Your task to perform on an android device: Is it going to rain today? Image 0: 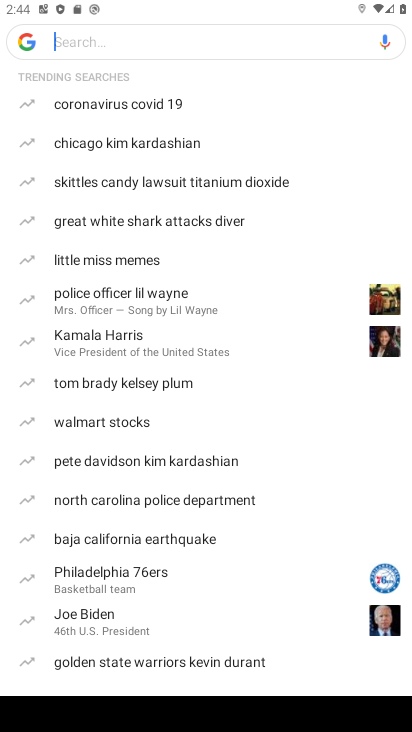
Step 0: press home button
Your task to perform on an android device: Is it going to rain today? Image 1: 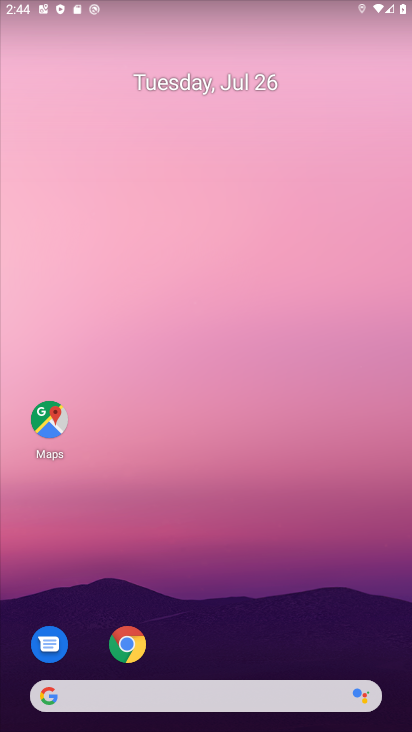
Step 1: click (46, 697)
Your task to perform on an android device: Is it going to rain today? Image 2: 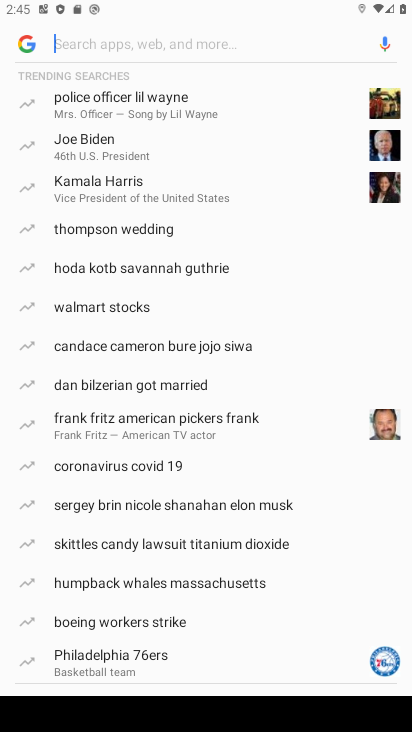
Step 2: type "Is it going to rain today?"
Your task to perform on an android device: Is it going to rain today? Image 3: 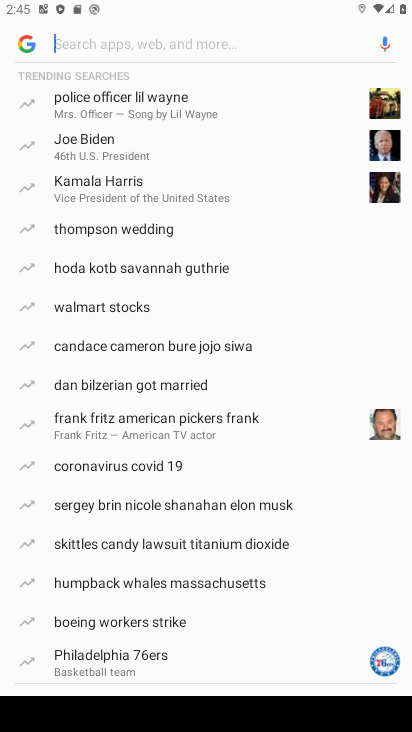
Step 3: click (92, 45)
Your task to perform on an android device: Is it going to rain today? Image 4: 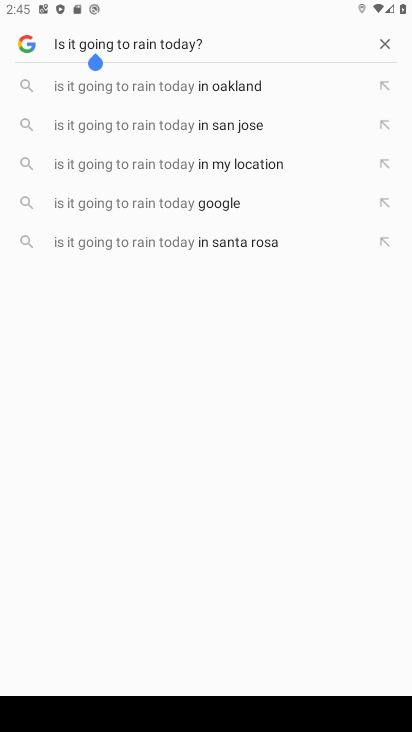
Step 4: press enter
Your task to perform on an android device: Is it going to rain today? Image 5: 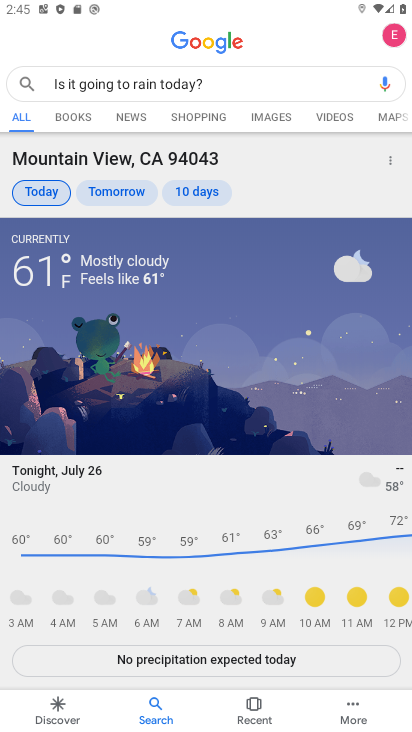
Step 5: task complete